Your task to perform on an android device: Open the calendar app, open the side menu, and click the "Day" option Image 0: 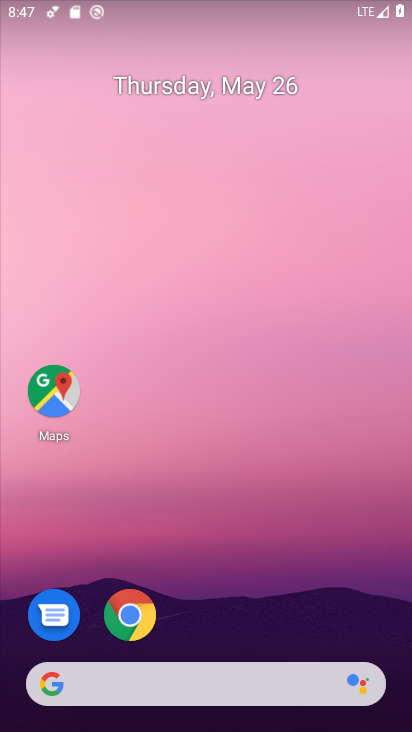
Step 0: drag from (269, 608) to (242, 269)
Your task to perform on an android device: Open the calendar app, open the side menu, and click the "Day" option Image 1: 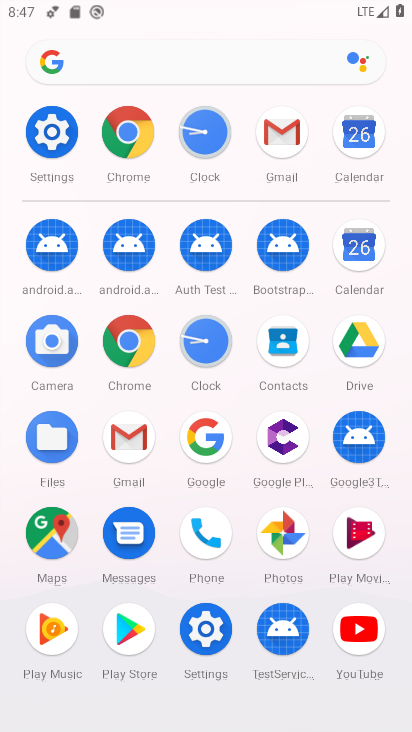
Step 1: click (365, 231)
Your task to perform on an android device: Open the calendar app, open the side menu, and click the "Day" option Image 2: 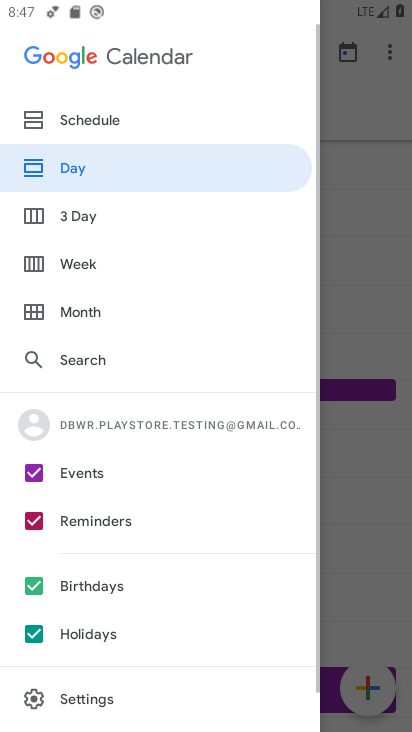
Step 2: click (91, 169)
Your task to perform on an android device: Open the calendar app, open the side menu, and click the "Day" option Image 3: 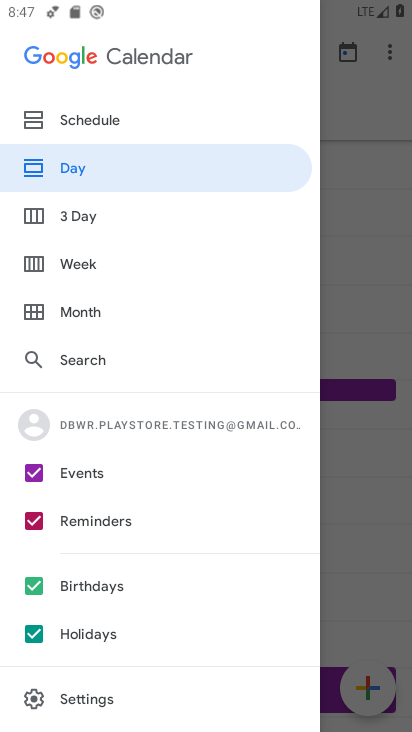
Step 3: task complete